Your task to perform on an android device: Open the map Image 0: 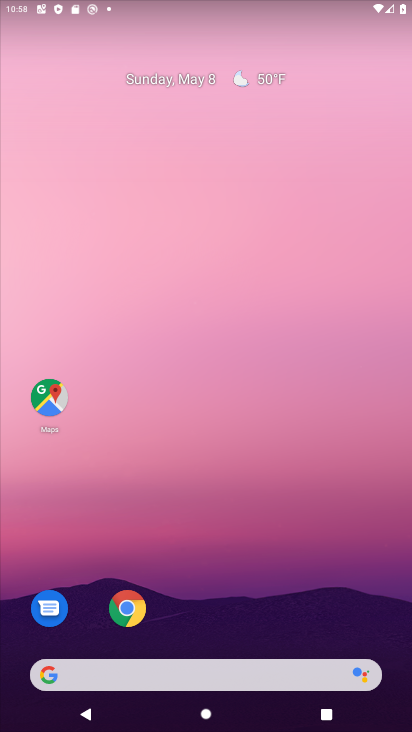
Step 0: click (49, 406)
Your task to perform on an android device: Open the map Image 1: 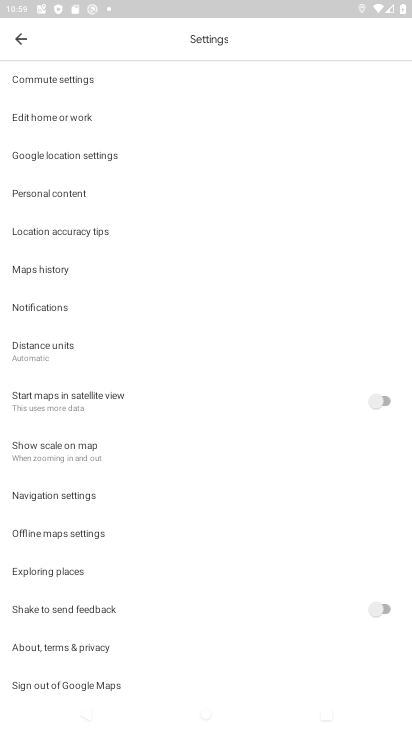
Step 1: click (17, 36)
Your task to perform on an android device: Open the map Image 2: 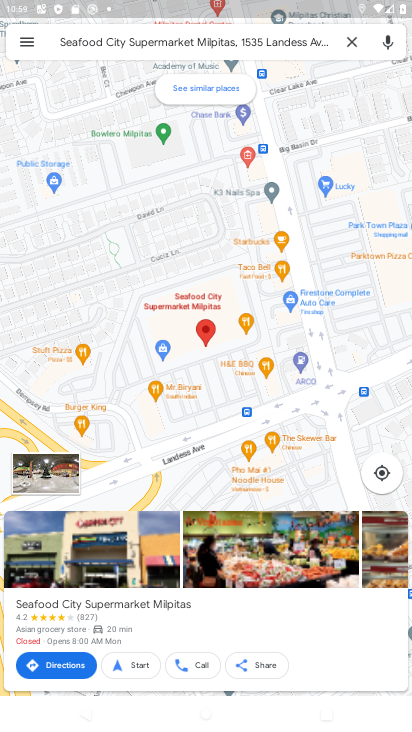
Step 2: task complete